Your task to perform on an android device: check storage Image 0: 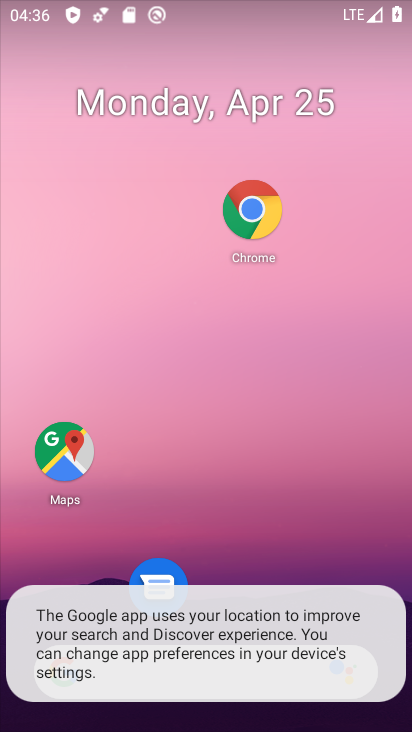
Step 0: drag from (285, 583) to (239, 222)
Your task to perform on an android device: check storage Image 1: 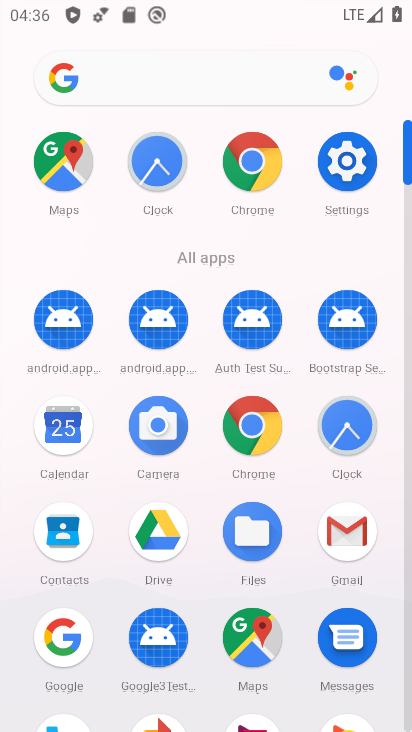
Step 1: click (349, 179)
Your task to perform on an android device: check storage Image 2: 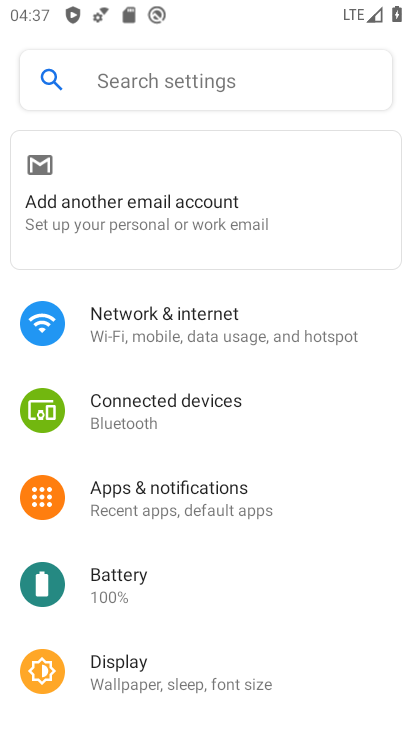
Step 2: drag from (275, 590) to (221, 186)
Your task to perform on an android device: check storage Image 3: 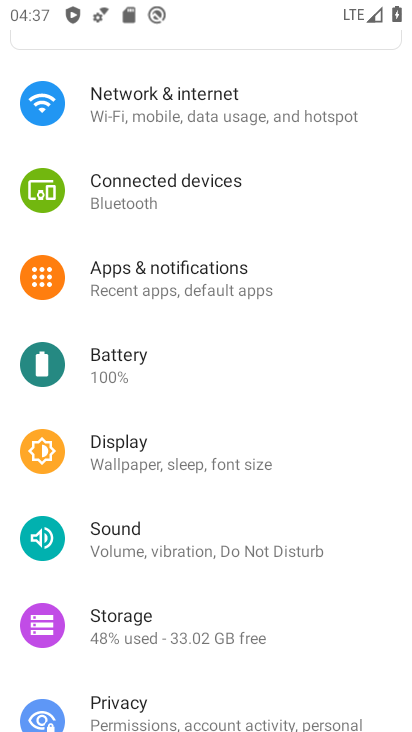
Step 3: click (232, 621)
Your task to perform on an android device: check storage Image 4: 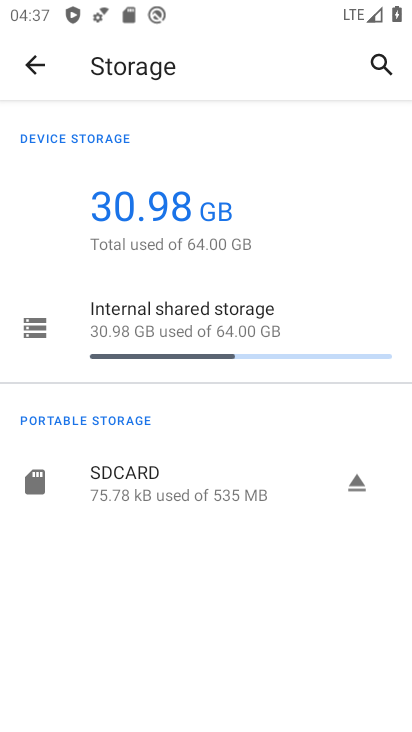
Step 4: task complete